Your task to perform on an android device: Open calendar and show me the third week of next month Image 0: 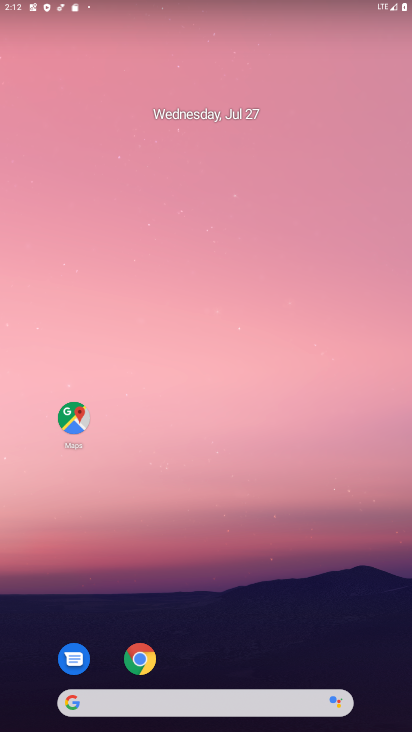
Step 0: drag from (207, 726) to (206, 31)
Your task to perform on an android device: Open calendar and show me the third week of next month Image 1: 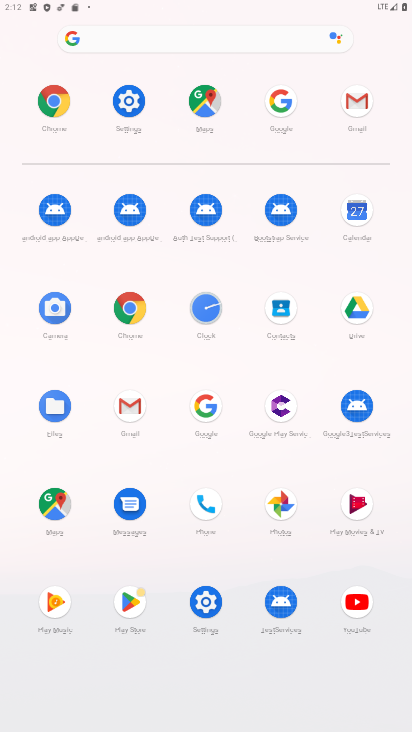
Step 1: click (364, 216)
Your task to perform on an android device: Open calendar and show me the third week of next month Image 2: 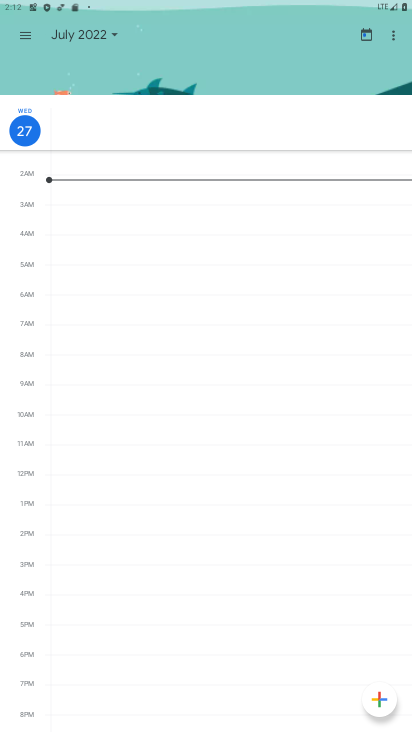
Step 2: click (109, 32)
Your task to perform on an android device: Open calendar and show me the third week of next month Image 3: 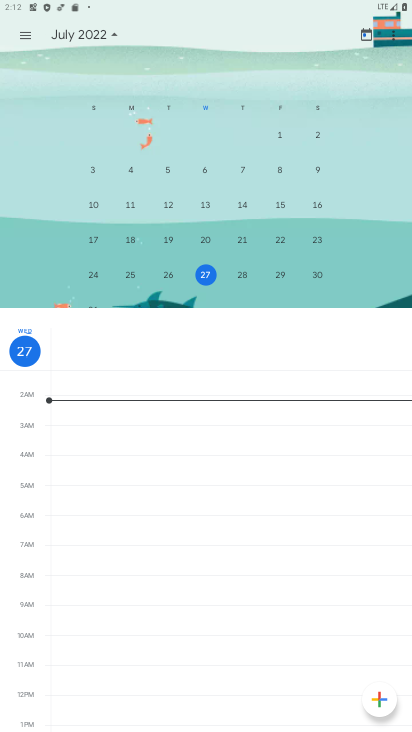
Step 3: drag from (319, 228) to (95, 222)
Your task to perform on an android device: Open calendar and show me the third week of next month Image 4: 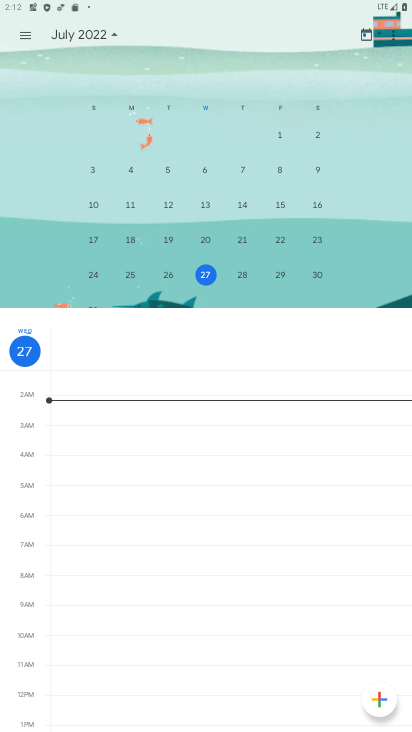
Step 4: drag from (328, 207) to (98, 207)
Your task to perform on an android device: Open calendar and show me the third week of next month Image 5: 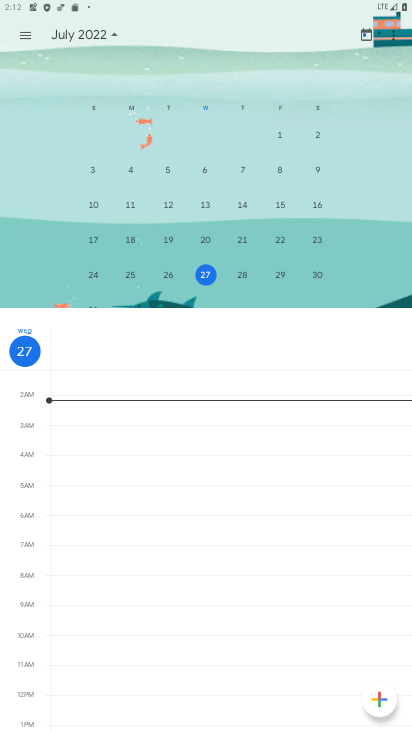
Step 5: drag from (321, 199) to (78, 191)
Your task to perform on an android device: Open calendar and show me the third week of next month Image 6: 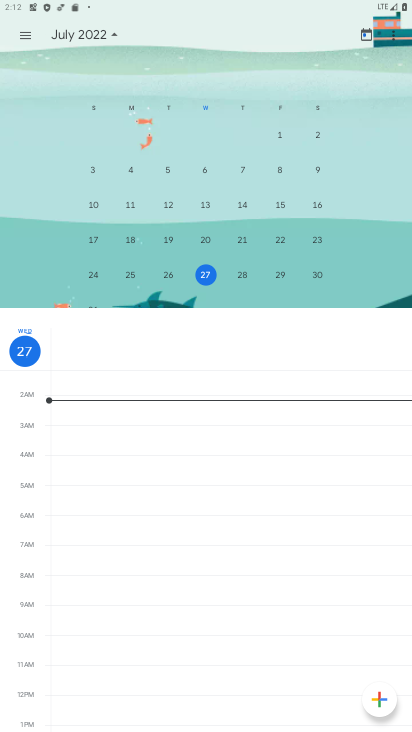
Step 6: drag from (306, 181) to (24, 175)
Your task to perform on an android device: Open calendar and show me the third week of next month Image 7: 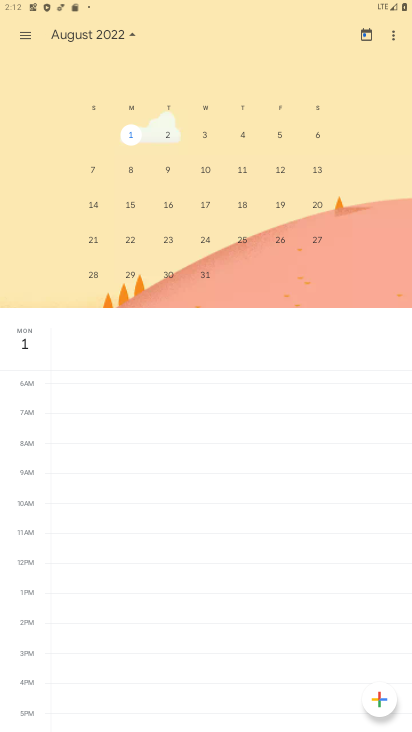
Step 7: click (129, 207)
Your task to perform on an android device: Open calendar and show me the third week of next month Image 8: 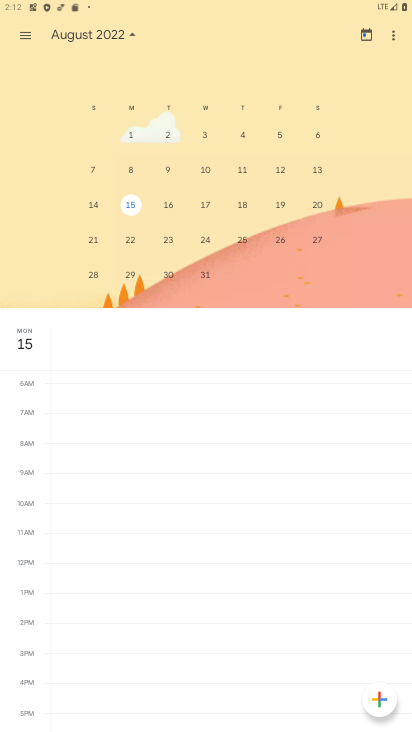
Step 8: click (30, 35)
Your task to perform on an android device: Open calendar and show me the third week of next month Image 9: 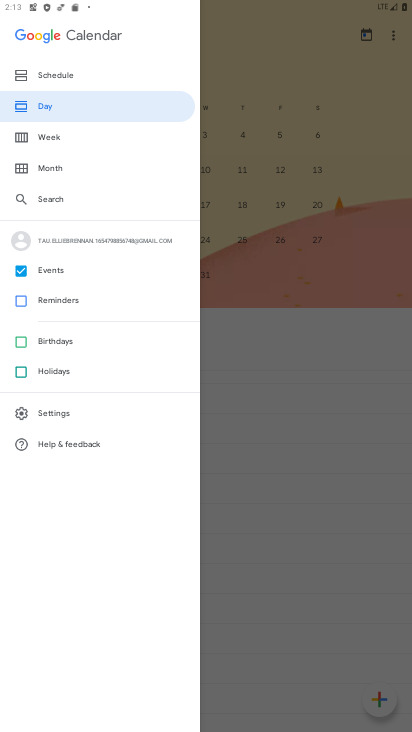
Step 9: click (51, 136)
Your task to perform on an android device: Open calendar and show me the third week of next month Image 10: 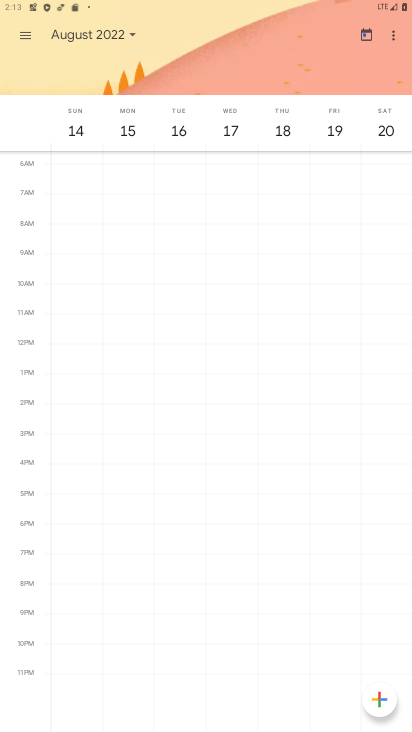
Step 10: task complete